Your task to perform on an android device: Open calendar and show me the third week of next month Image 0: 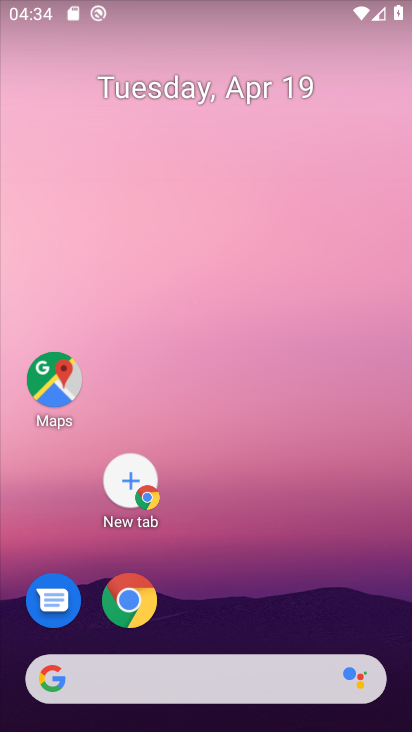
Step 0: click (180, 82)
Your task to perform on an android device: Open calendar and show me the third week of next month Image 1: 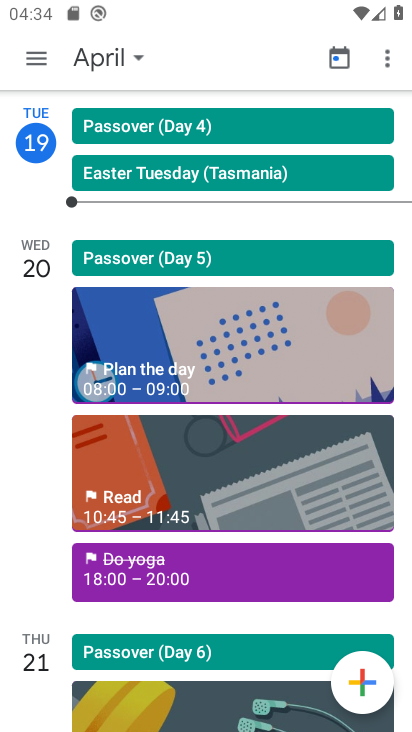
Step 1: click (132, 69)
Your task to perform on an android device: Open calendar and show me the third week of next month Image 2: 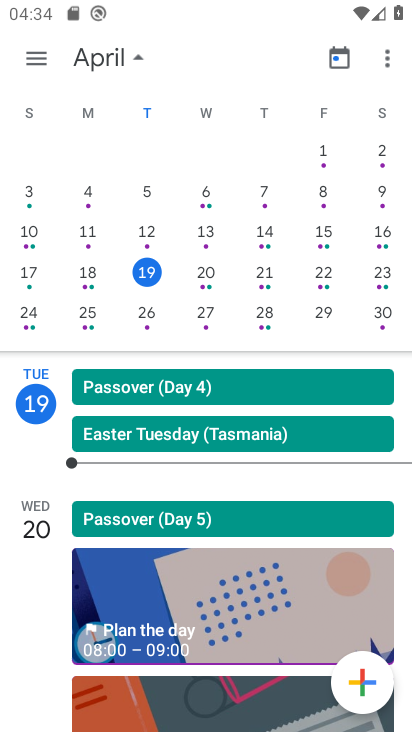
Step 2: drag from (362, 307) to (21, 324)
Your task to perform on an android device: Open calendar and show me the third week of next month Image 3: 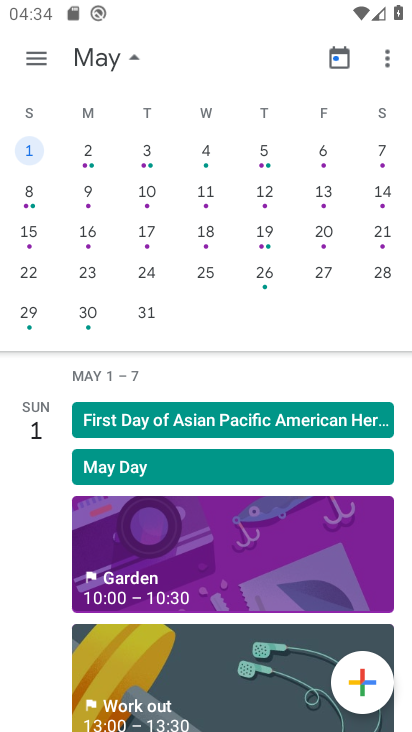
Step 3: drag from (368, 308) to (77, 300)
Your task to perform on an android device: Open calendar and show me the third week of next month Image 4: 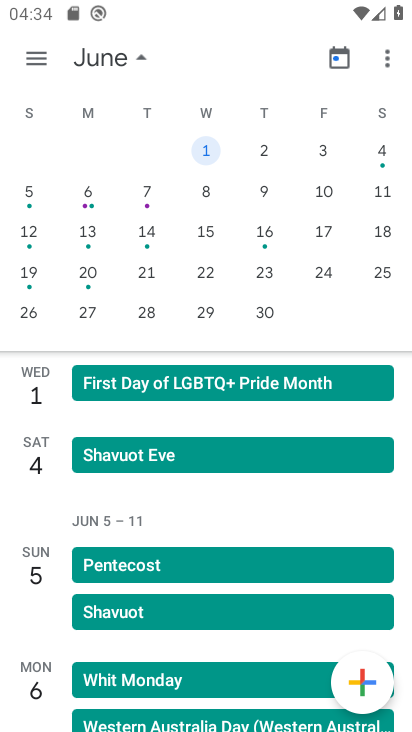
Step 4: click (268, 223)
Your task to perform on an android device: Open calendar and show me the third week of next month Image 5: 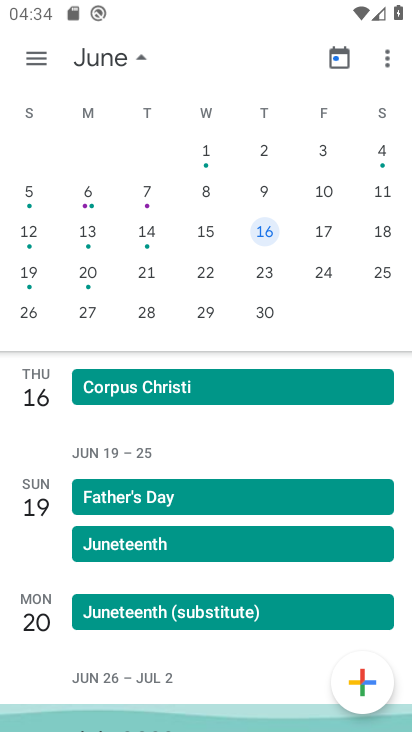
Step 5: task complete